Your task to perform on an android device: Go to display settings Image 0: 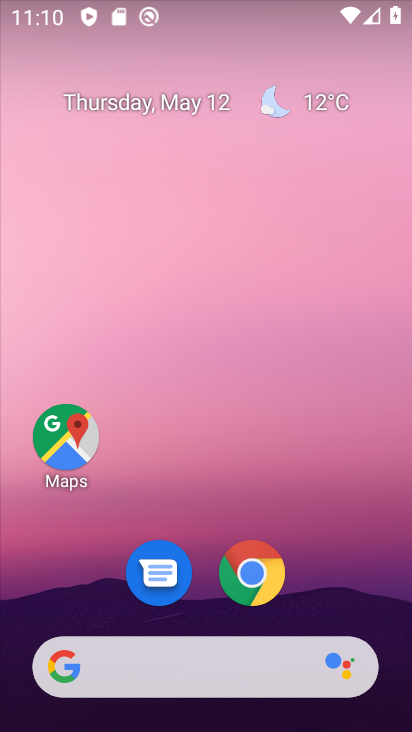
Step 0: drag from (347, 574) to (344, 29)
Your task to perform on an android device: Go to display settings Image 1: 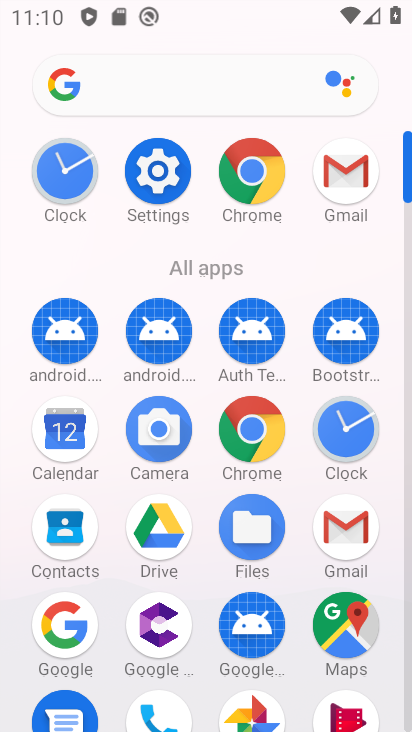
Step 1: click (157, 176)
Your task to perform on an android device: Go to display settings Image 2: 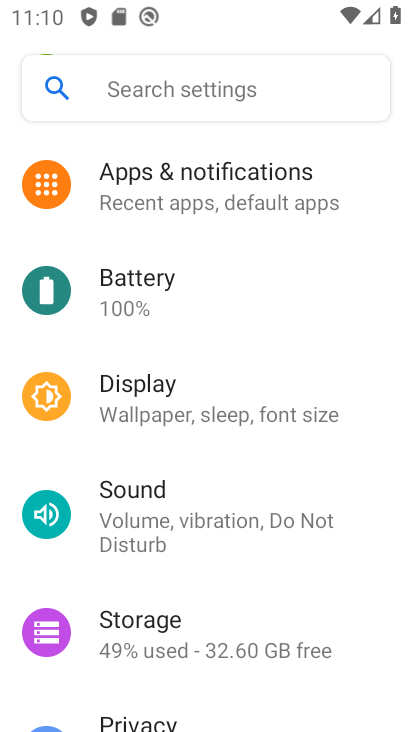
Step 2: drag from (294, 582) to (331, 109)
Your task to perform on an android device: Go to display settings Image 3: 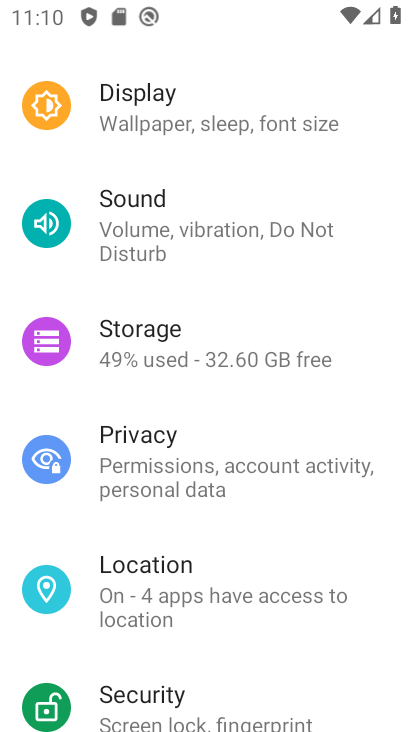
Step 3: click (74, 131)
Your task to perform on an android device: Go to display settings Image 4: 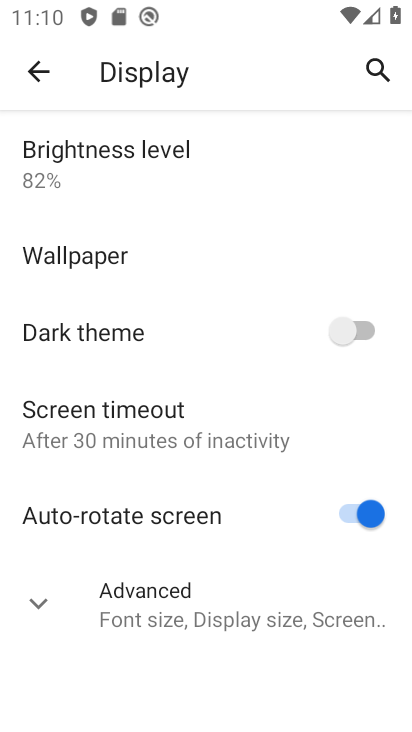
Step 4: task complete